Your task to perform on an android device: Go to privacy settings Image 0: 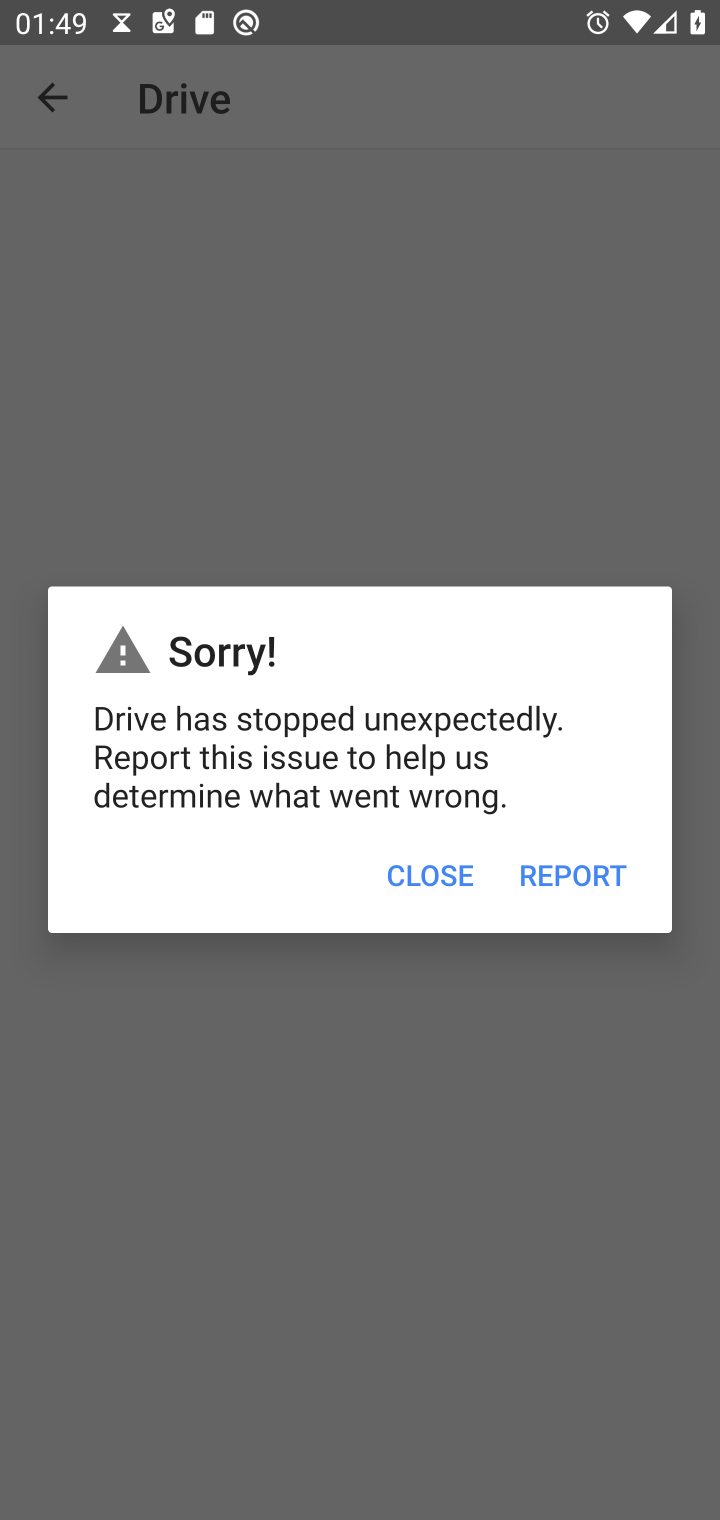
Step 0: press home button
Your task to perform on an android device: Go to privacy settings Image 1: 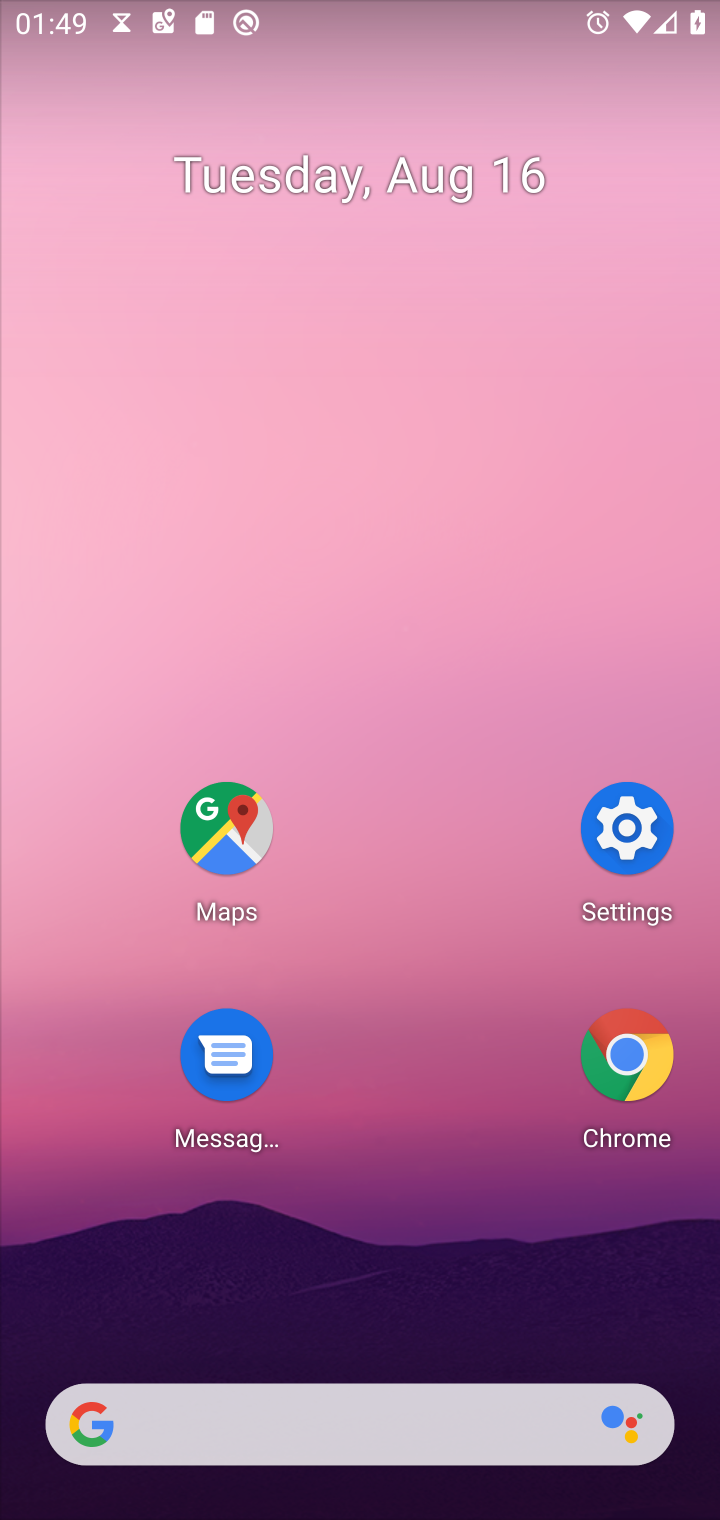
Step 1: click (636, 822)
Your task to perform on an android device: Go to privacy settings Image 2: 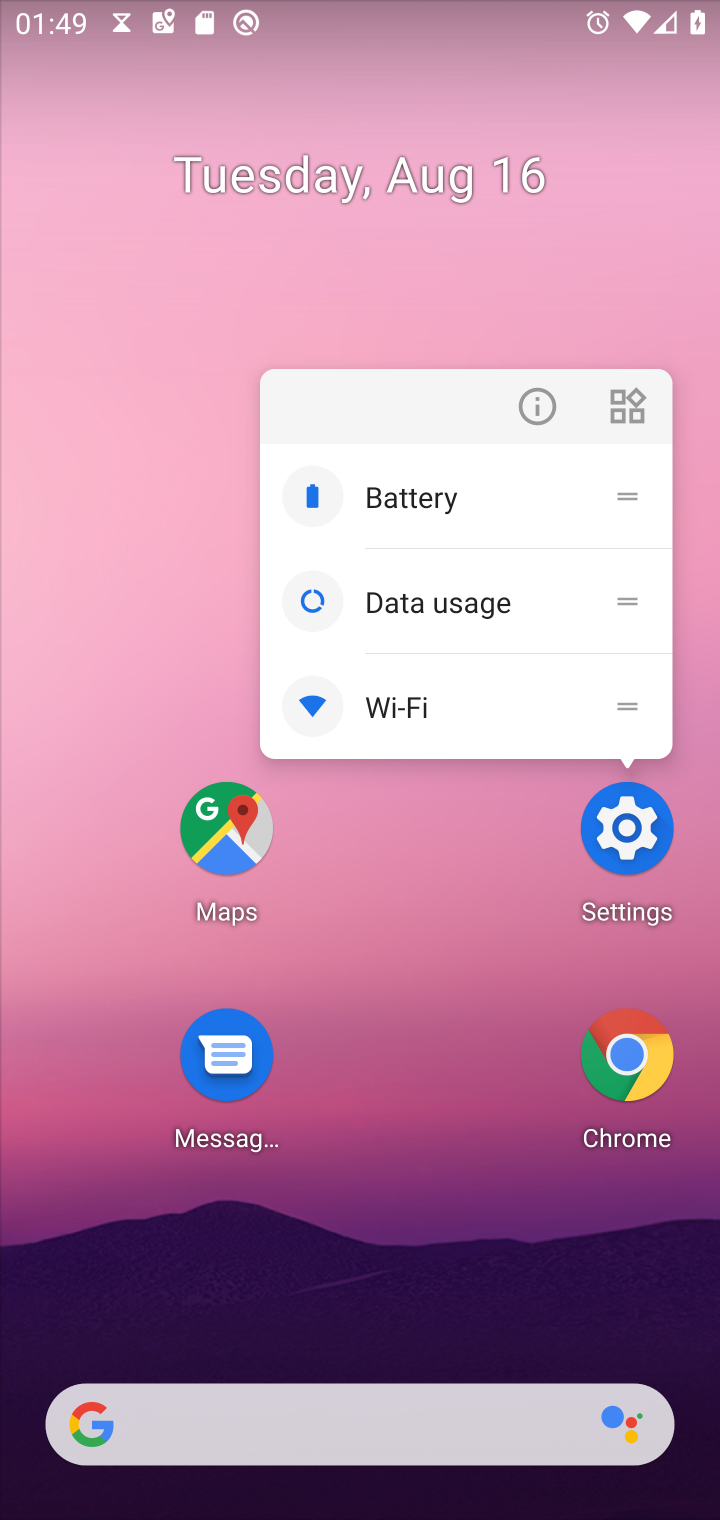
Step 2: click (636, 822)
Your task to perform on an android device: Go to privacy settings Image 3: 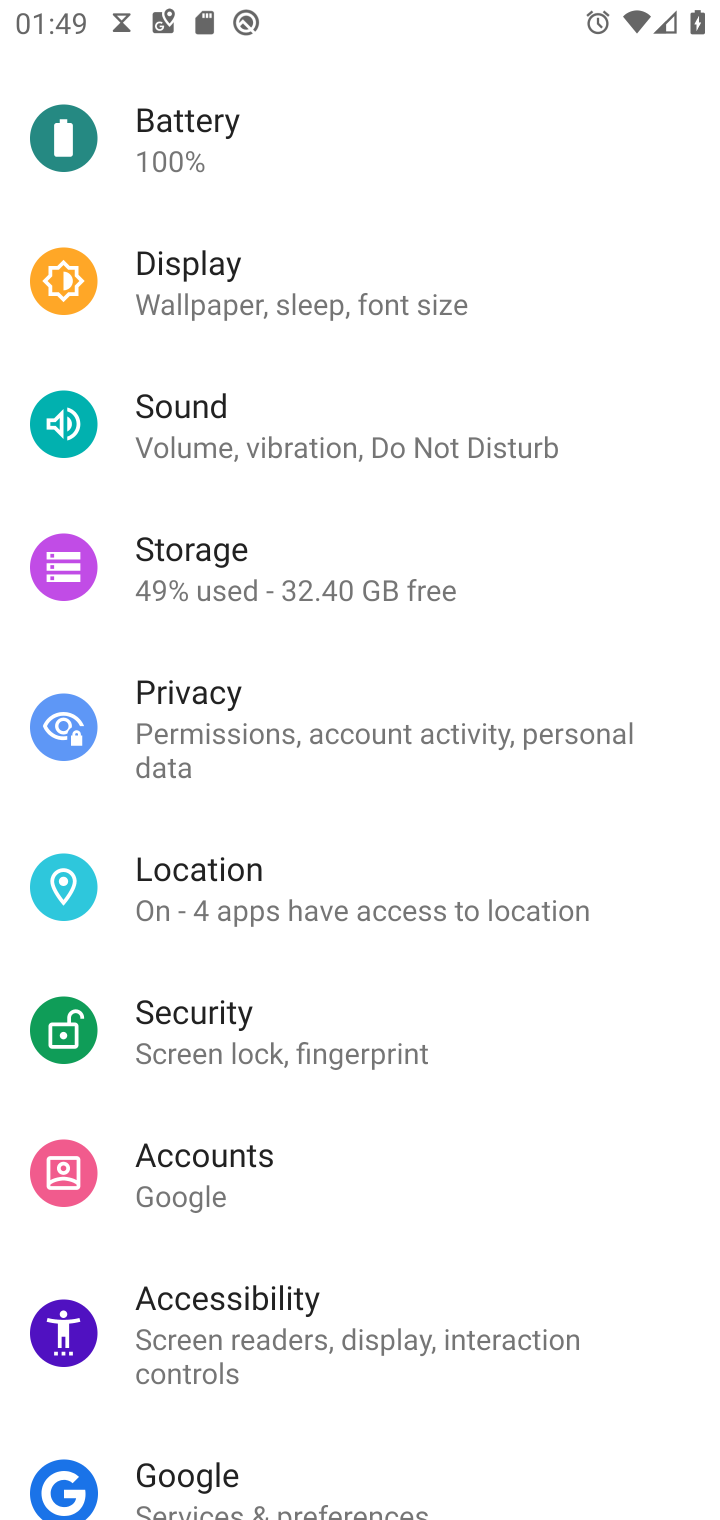
Step 3: click (247, 721)
Your task to perform on an android device: Go to privacy settings Image 4: 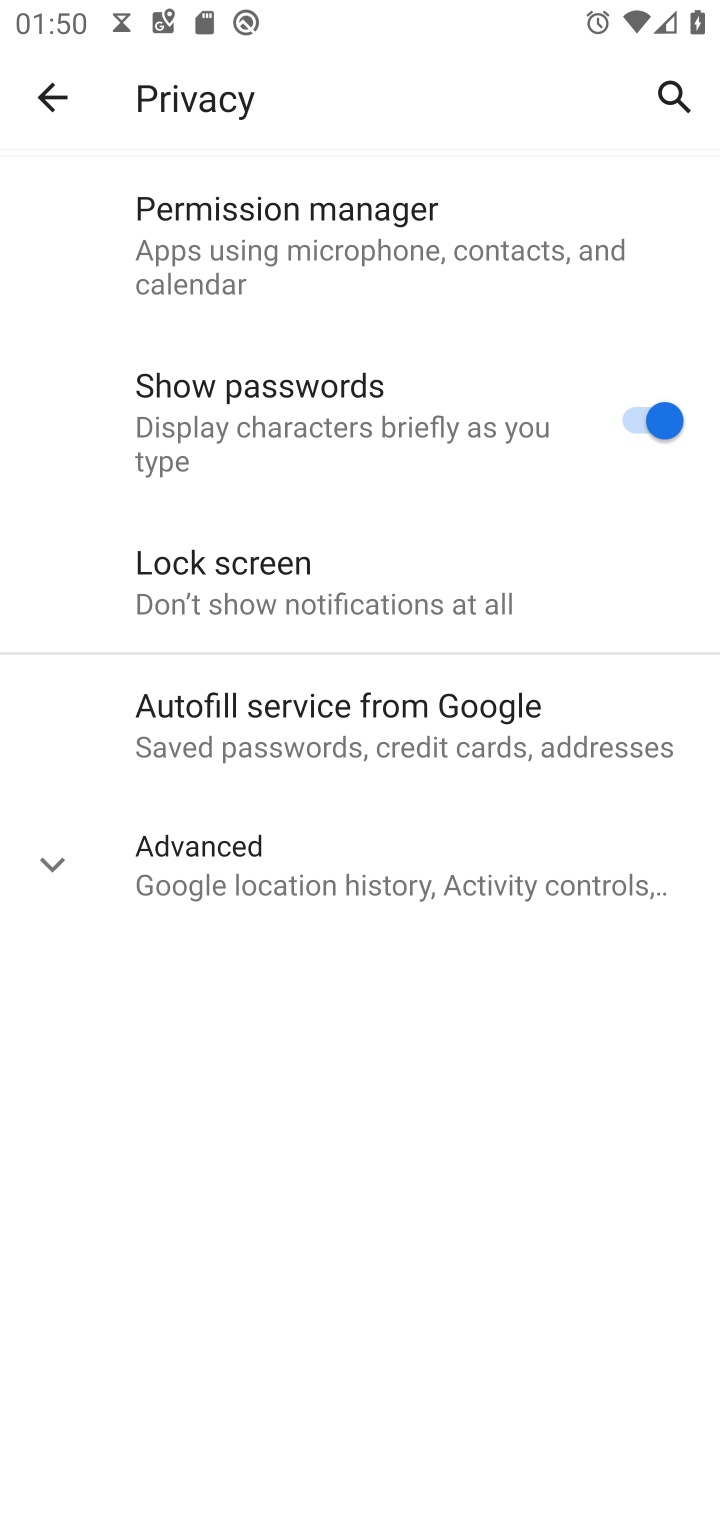
Step 4: task complete